Your task to perform on an android device: turn on showing notifications on the lock screen Image 0: 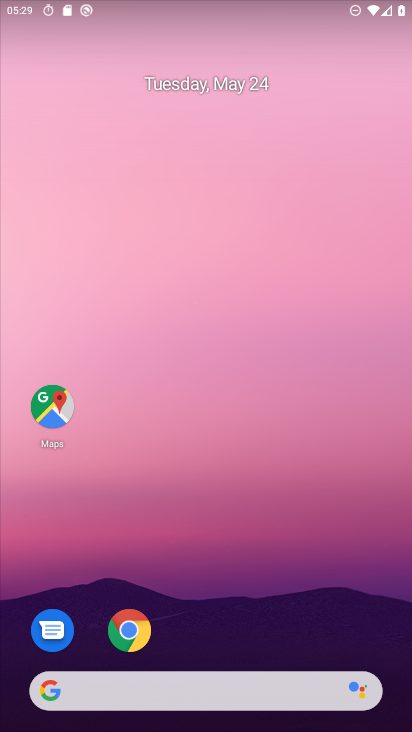
Step 0: drag from (184, 666) to (211, 177)
Your task to perform on an android device: turn on showing notifications on the lock screen Image 1: 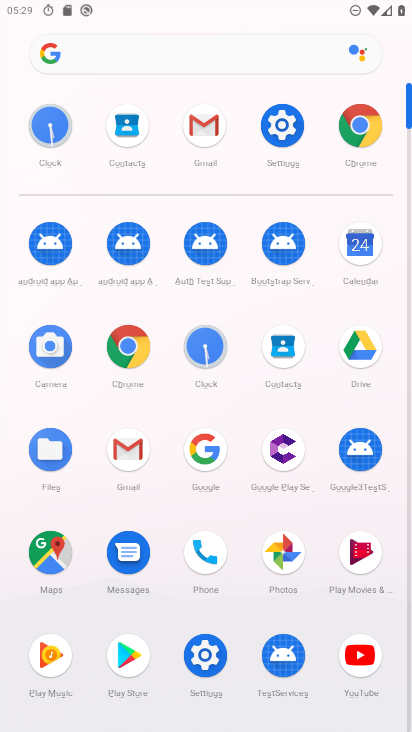
Step 1: click (272, 117)
Your task to perform on an android device: turn on showing notifications on the lock screen Image 2: 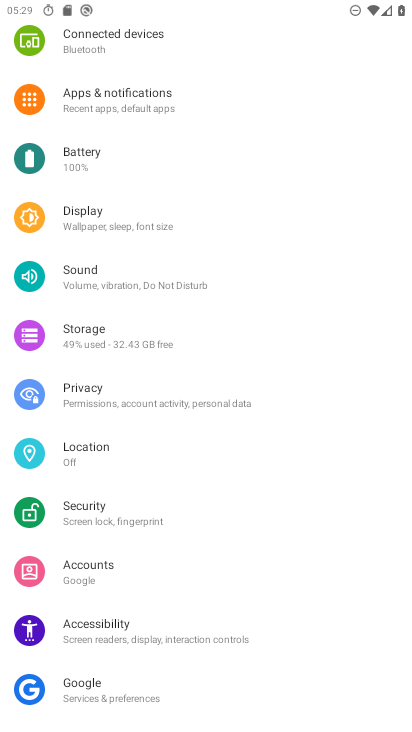
Step 2: click (165, 90)
Your task to perform on an android device: turn on showing notifications on the lock screen Image 3: 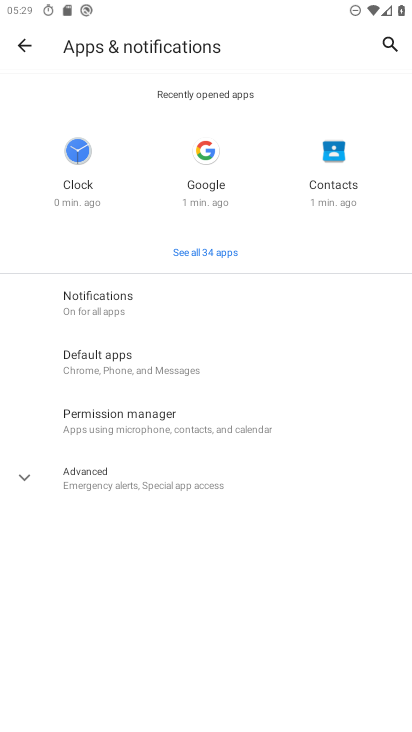
Step 3: click (133, 311)
Your task to perform on an android device: turn on showing notifications on the lock screen Image 4: 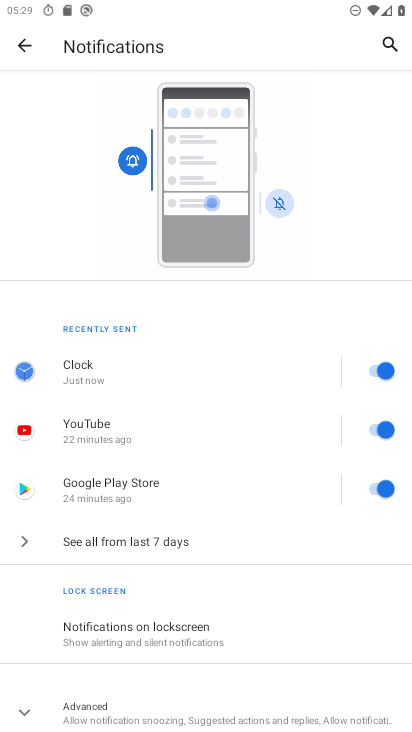
Step 4: click (123, 613)
Your task to perform on an android device: turn on showing notifications on the lock screen Image 5: 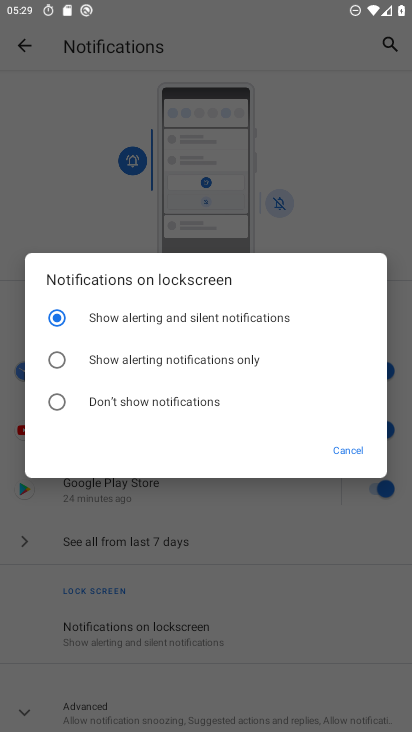
Step 5: task complete